Your task to perform on an android device: Open ESPN.com Image 0: 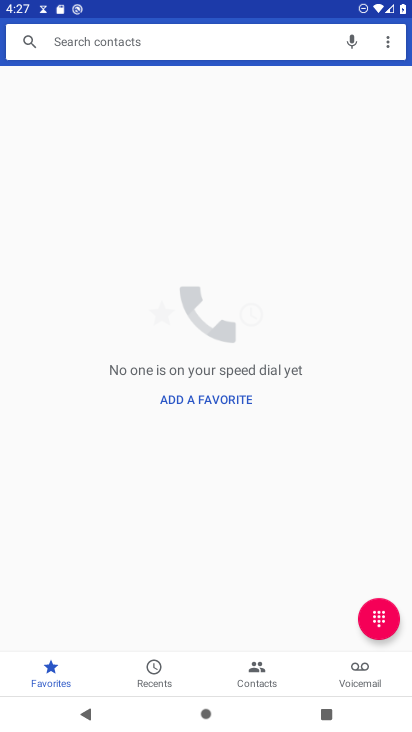
Step 0: press home button
Your task to perform on an android device: Open ESPN.com Image 1: 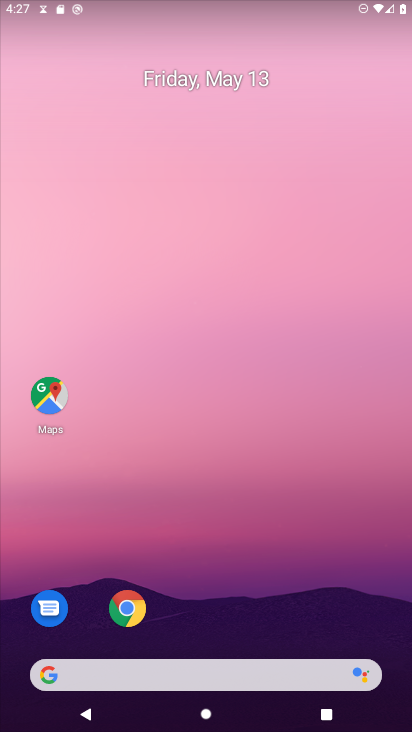
Step 1: drag from (226, 594) to (232, 7)
Your task to perform on an android device: Open ESPN.com Image 2: 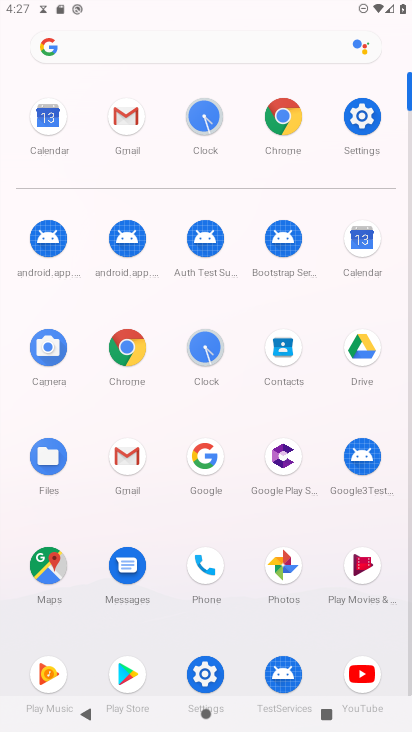
Step 2: click (131, 349)
Your task to perform on an android device: Open ESPN.com Image 3: 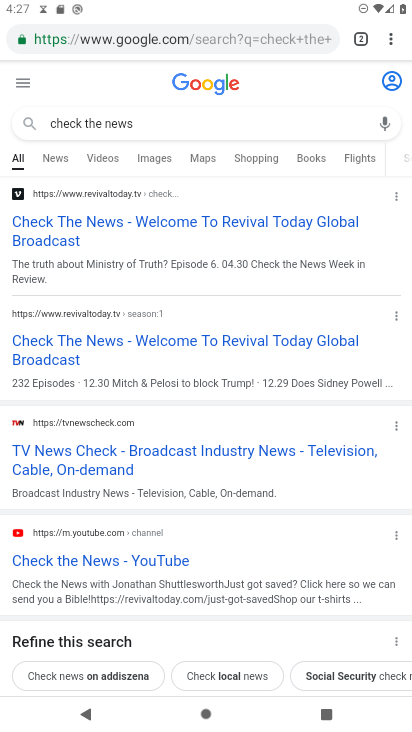
Step 3: click (192, 39)
Your task to perform on an android device: Open ESPN.com Image 4: 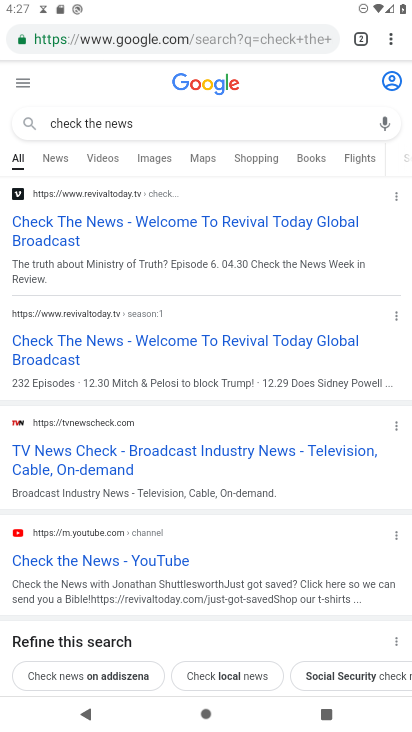
Step 4: click (192, 39)
Your task to perform on an android device: Open ESPN.com Image 5: 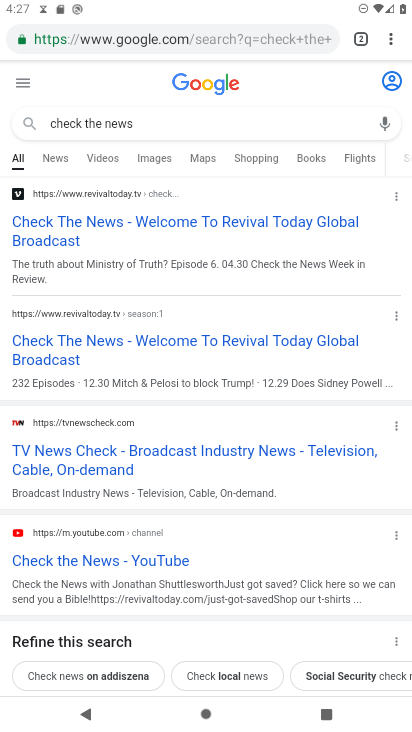
Step 5: click (192, 39)
Your task to perform on an android device: Open ESPN.com Image 6: 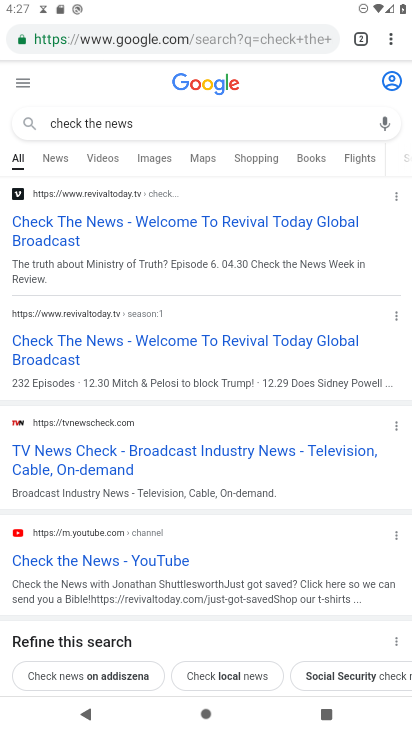
Step 6: click (305, 40)
Your task to perform on an android device: Open ESPN.com Image 7: 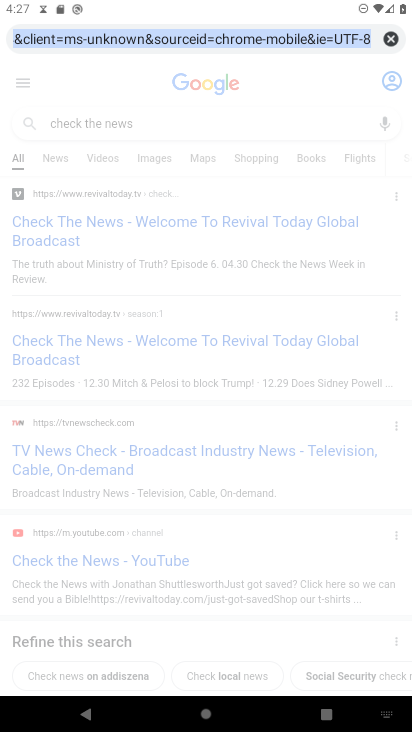
Step 7: click (392, 37)
Your task to perform on an android device: Open ESPN.com Image 8: 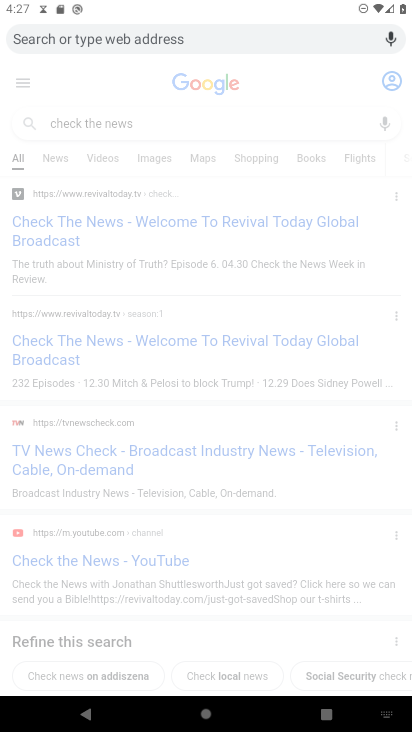
Step 8: type "espn.com"
Your task to perform on an android device: Open ESPN.com Image 9: 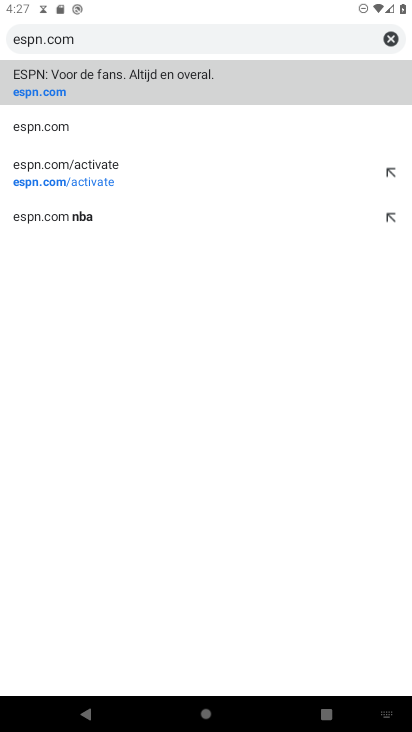
Step 9: click (102, 80)
Your task to perform on an android device: Open ESPN.com Image 10: 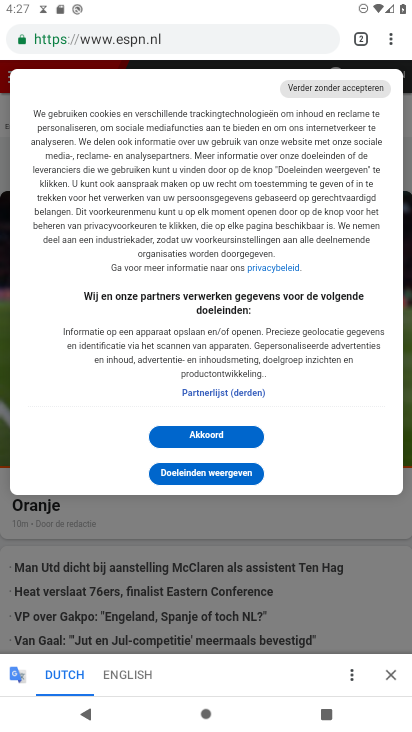
Step 10: task complete